Your task to perform on an android device: Do I have any events tomorrow? Image 0: 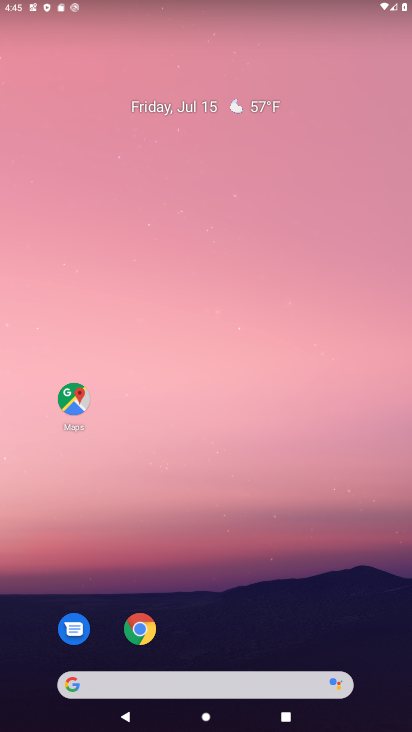
Step 0: drag from (209, 650) to (221, 6)
Your task to perform on an android device: Do I have any events tomorrow? Image 1: 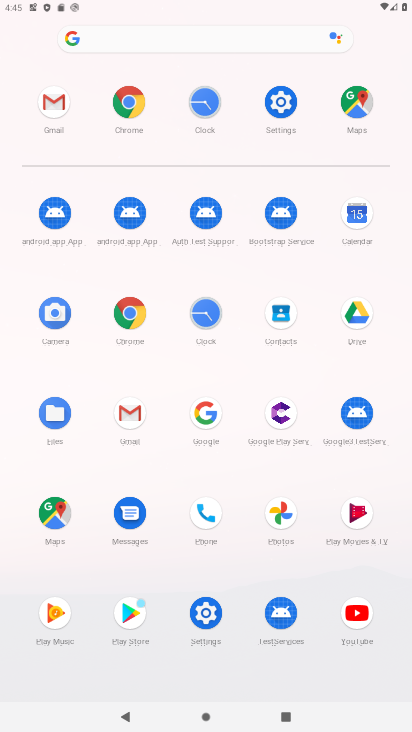
Step 1: click (365, 227)
Your task to perform on an android device: Do I have any events tomorrow? Image 2: 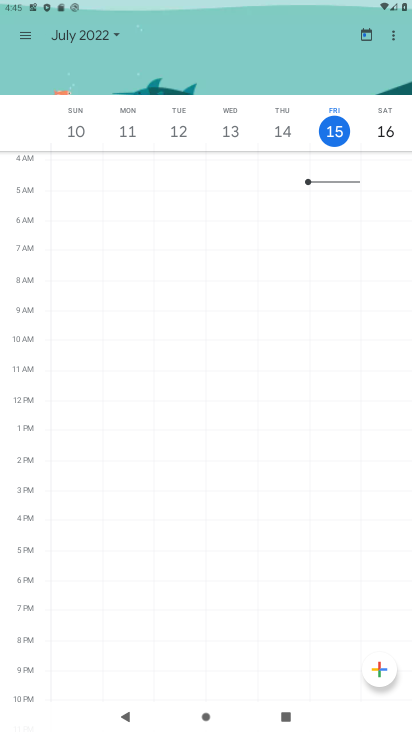
Step 2: click (21, 34)
Your task to perform on an android device: Do I have any events tomorrow? Image 3: 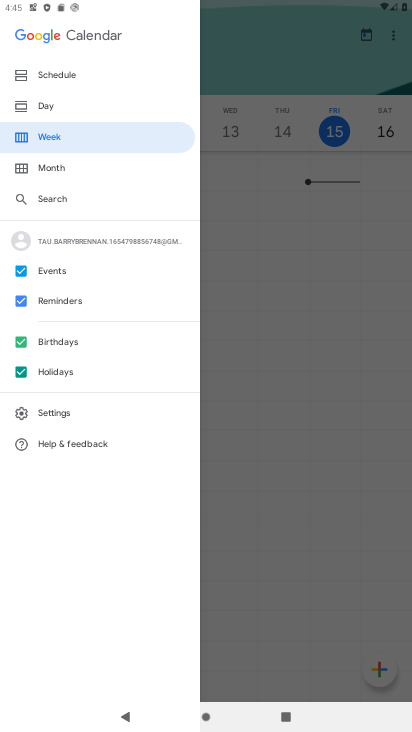
Step 3: click (51, 274)
Your task to perform on an android device: Do I have any events tomorrow? Image 4: 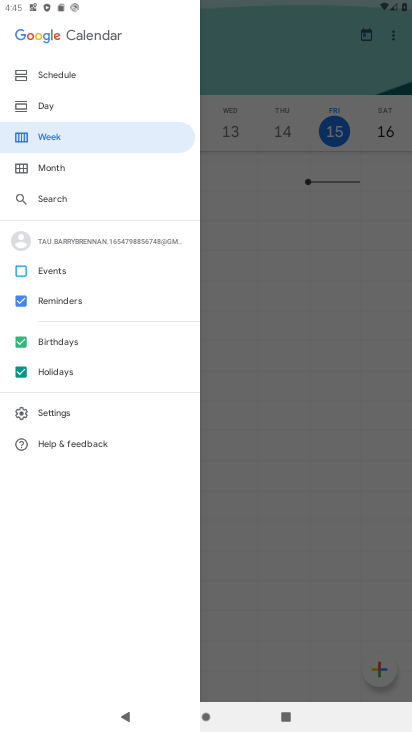
Step 4: click (336, 264)
Your task to perform on an android device: Do I have any events tomorrow? Image 5: 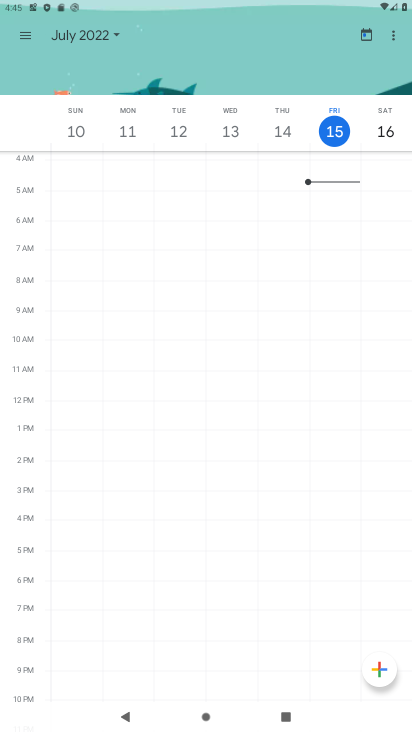
Step 5: task complete